Your task to perform on an android device: Check the weather Image 0: 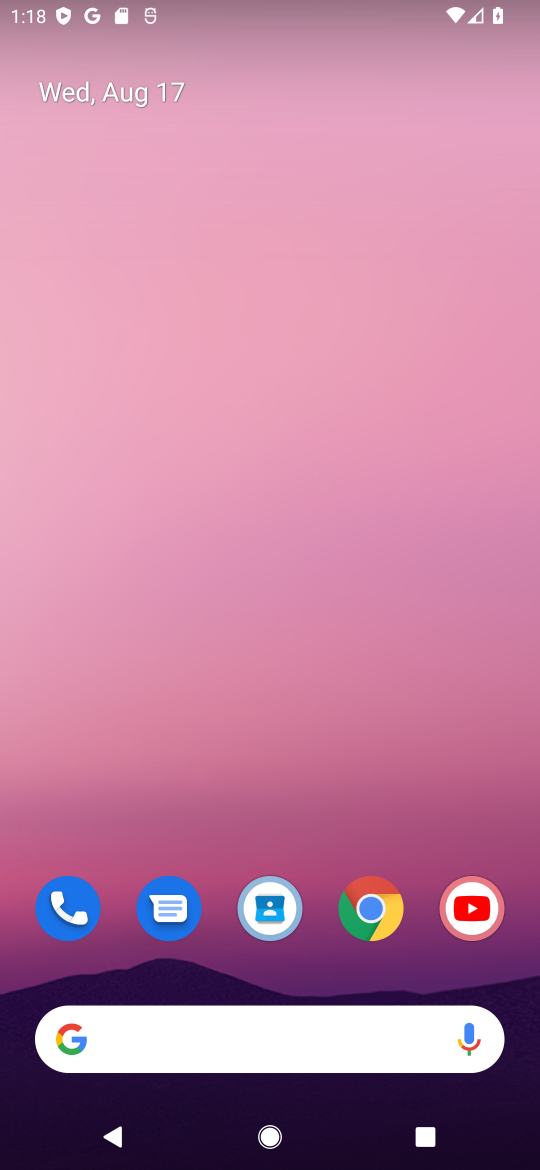
Step 0: drag from (381, 943) to (389, 71)
Your task to perform on an android device: Check the weather Image 1: 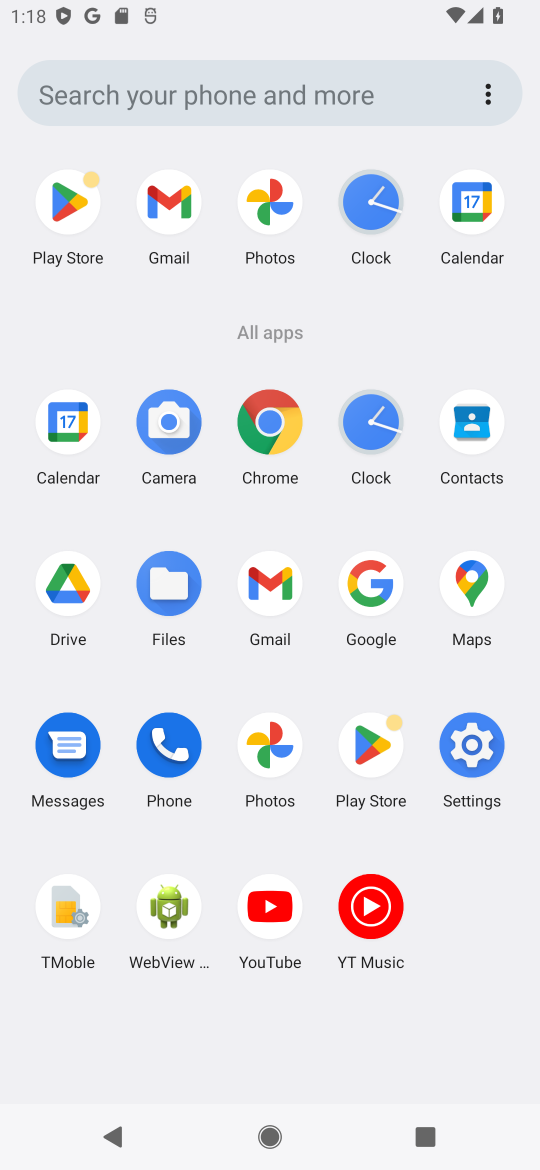
Step 1: click (519, 336)
Your task to perform on an android device: Check the weather Image 2: 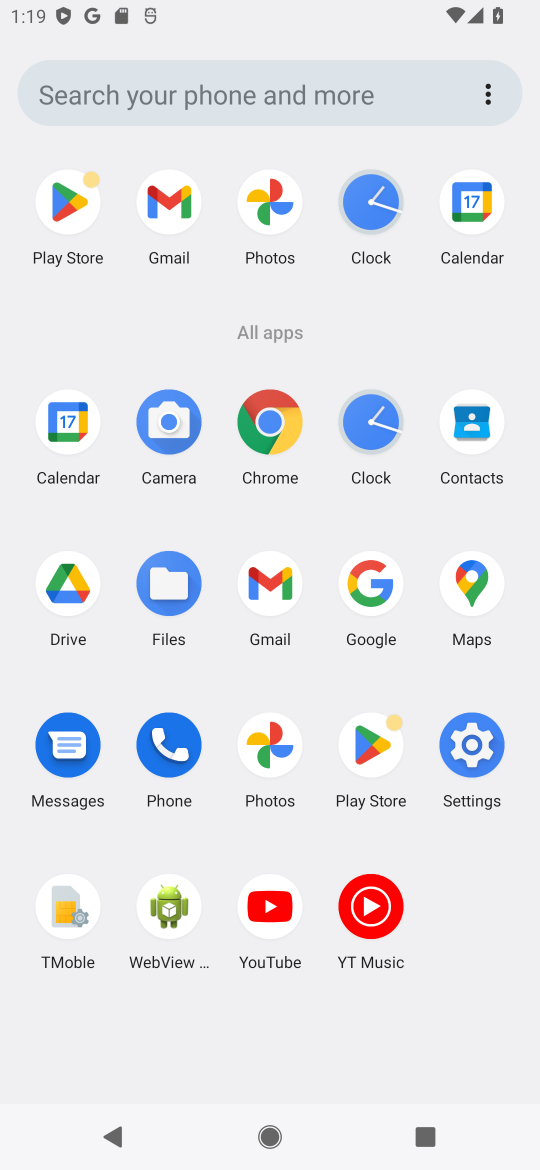
Step 2: click (361, 587)
Your task to perform on an android device: Check the weather Image 3: 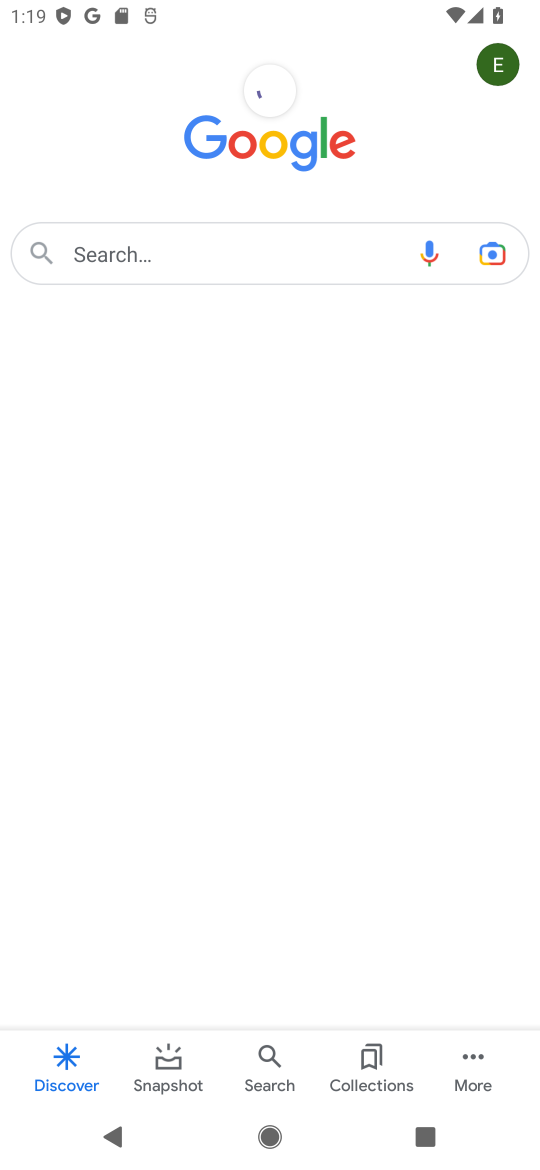
Step 3: click (132, 248)
Your task to perform on an android device: Check the weather Image 4: 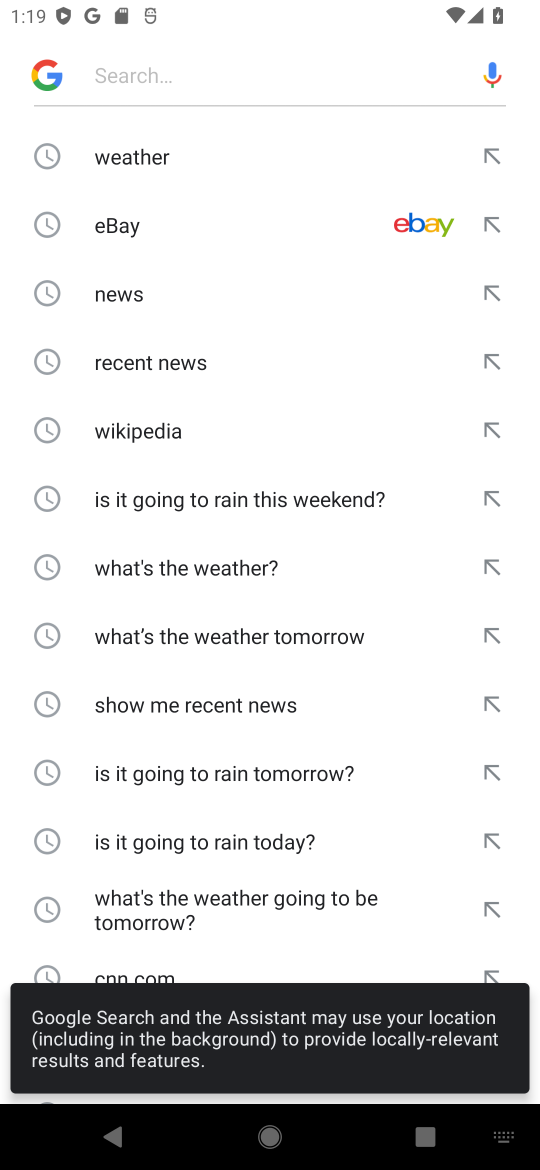
Step 4: click (128, 153)
Your task to perform on an android device: Check the weather Image 5: 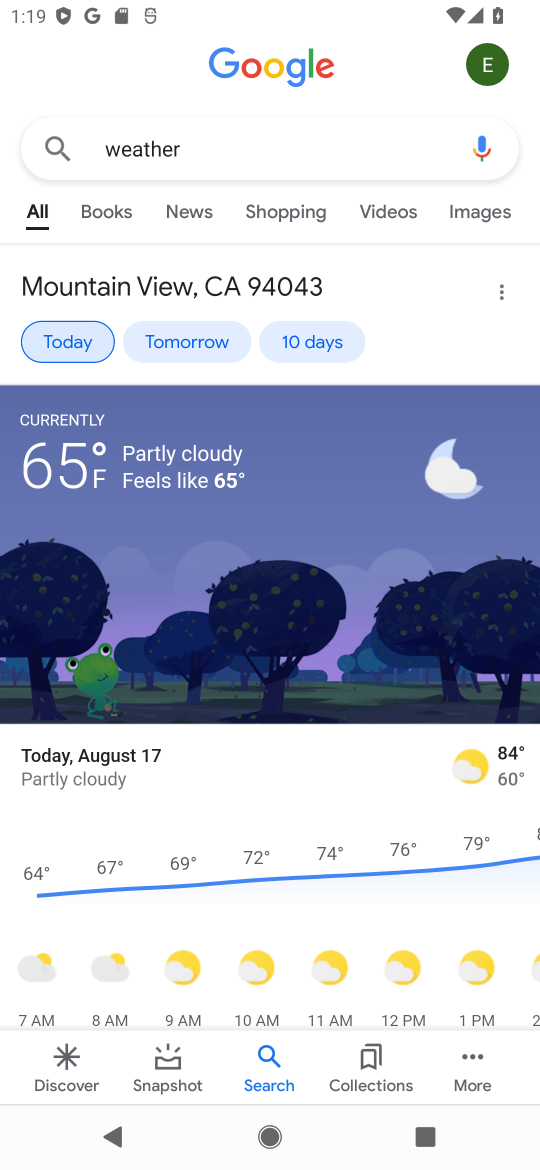
Step 5: task complete